Your task to perform on an android device: Open the map Image 0: 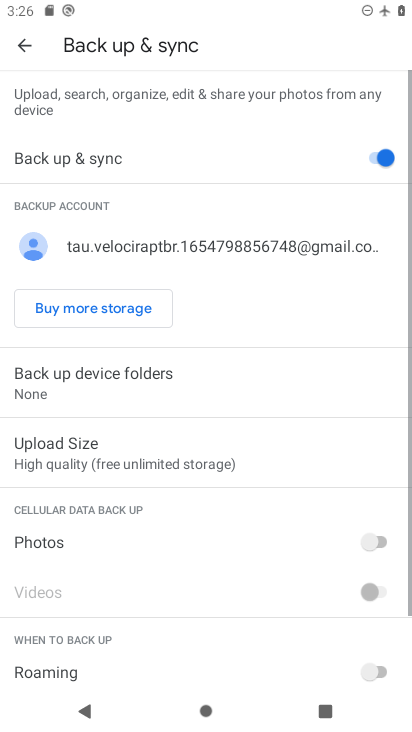
Step 0: press home button
Your task to perform on an android device: Open the map Image 1: 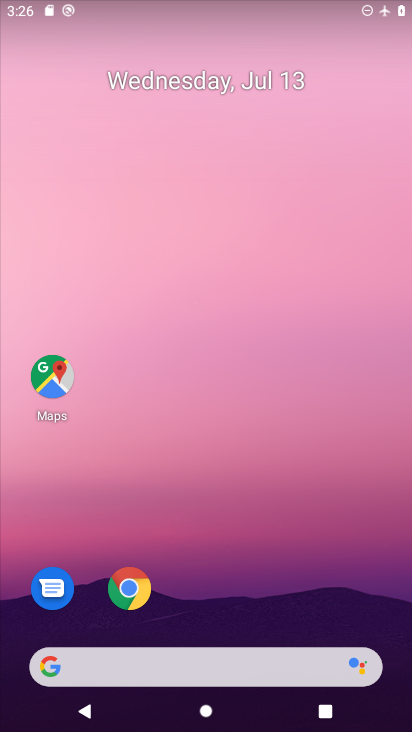
Step 1: drag from (222, 640) to (322, 4)
Your task to perform on an android device: Open the map Image 2: 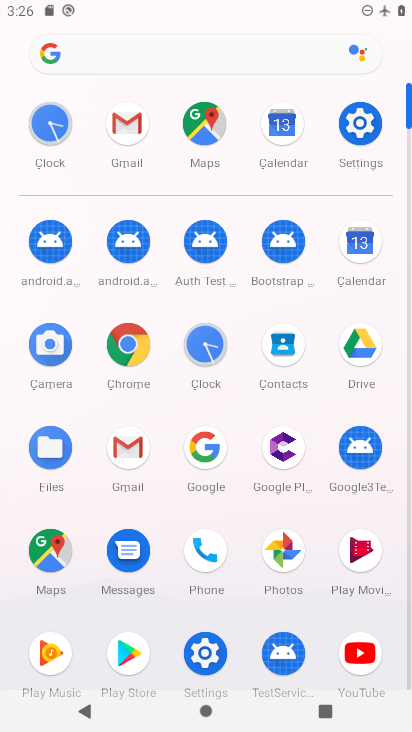
Step 2: click (190, 140)
Your task to perform on an android device: Open the map Image 3: 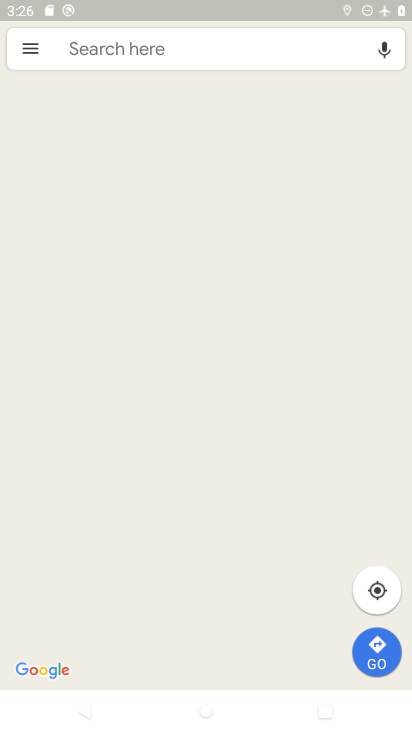
Step 3: task complete